Your task to perform on an android device: Open wifi settings Image 0: 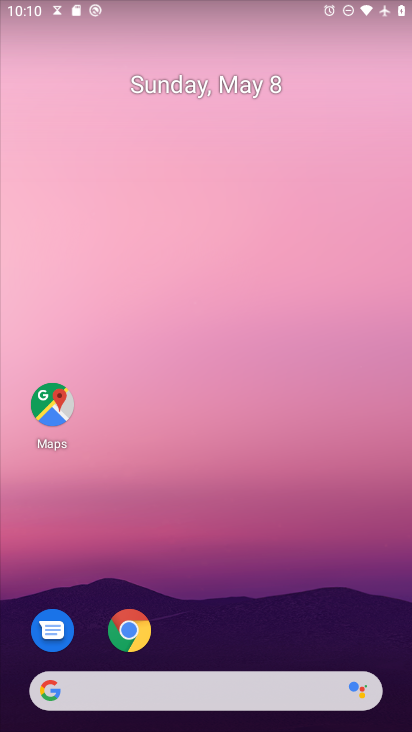
Step 0: drag from (237, 700) to (336, 248)
Your task to perform on an android device: Open wifi settings Image 1: 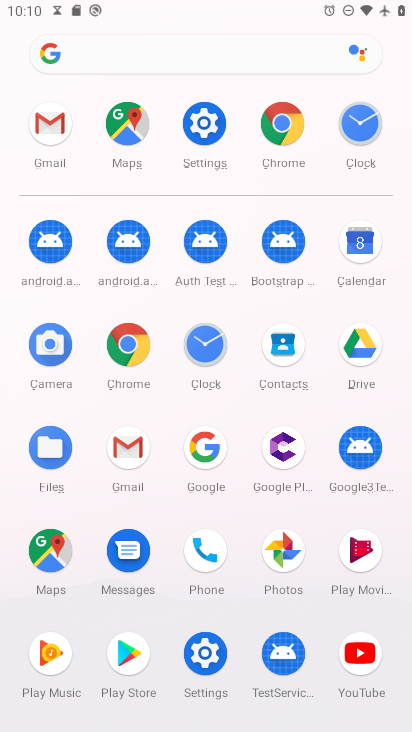
Step 1: click (209, 128)
Your task to perform on an android device: Open wifi settings Image 2: 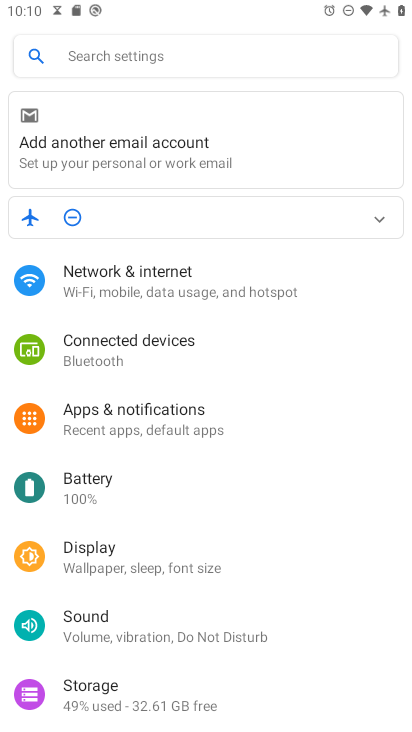
Step 2: click (118, 272)
Your task to perform on an android device: Open wifi settings Image 3: 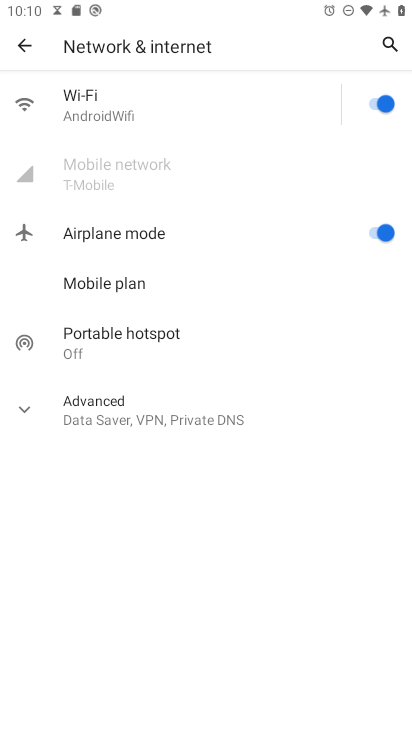
Step 3: click (88, 114)
Your task to perform on an android device: Open wifi settings Image 4: 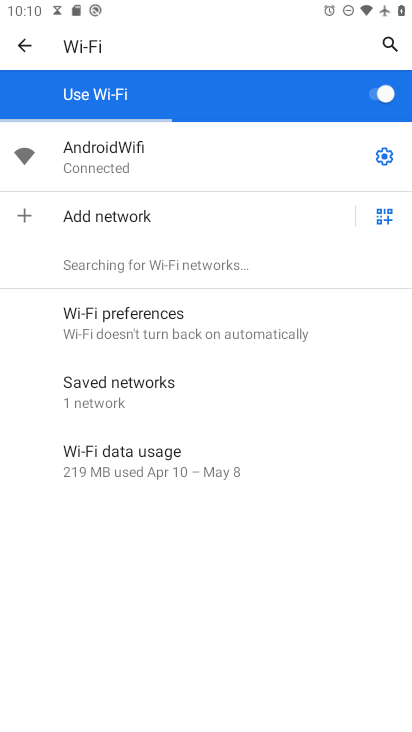
Step 4: task complete